Your task to perform on an android device: change the clock display to analog Image 0: 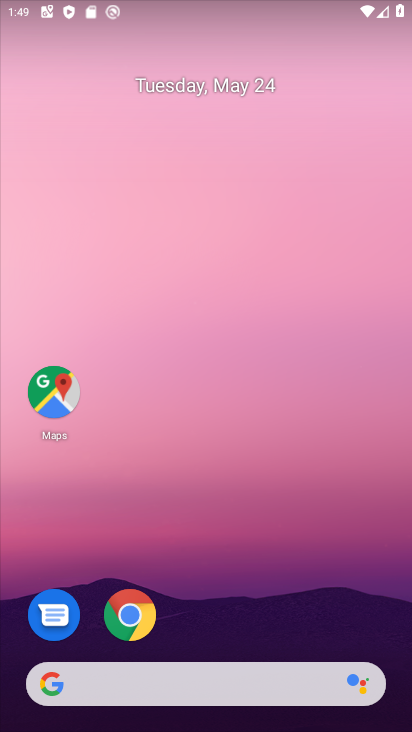
Step 0: drag from (198, 639) to (248, 42)
Your task to perform on an android device: change the clock display to analog Image 1: 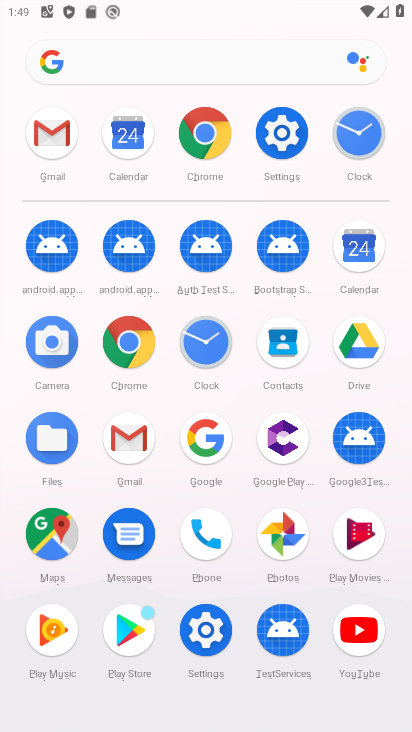
Step 1: click (204, 331)
Your task to perform on an android device: change the clock display to analog Image 2: 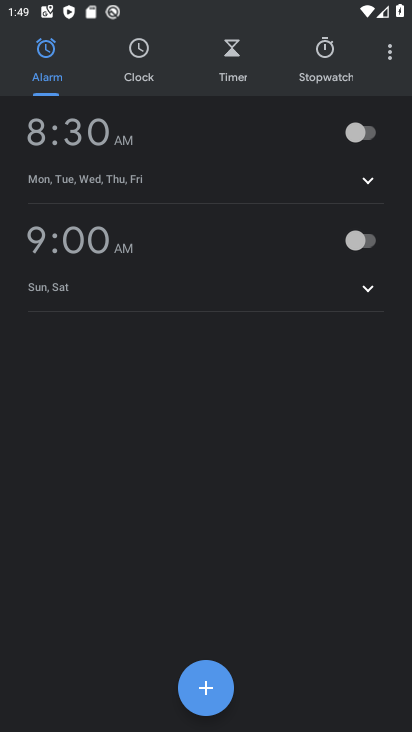
Step 2: click (389, 47)
Your task to perform on an android device: change the clock display to analog Image 3: 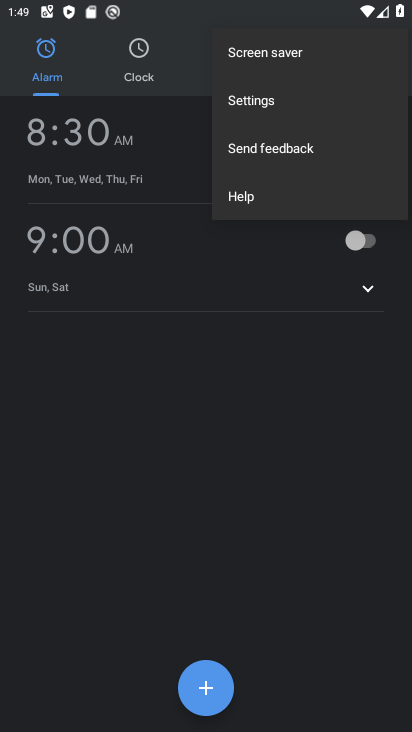
Step 3: click (282, 97)
Your task to perform on an android device: change the clock display to analog Image 4: 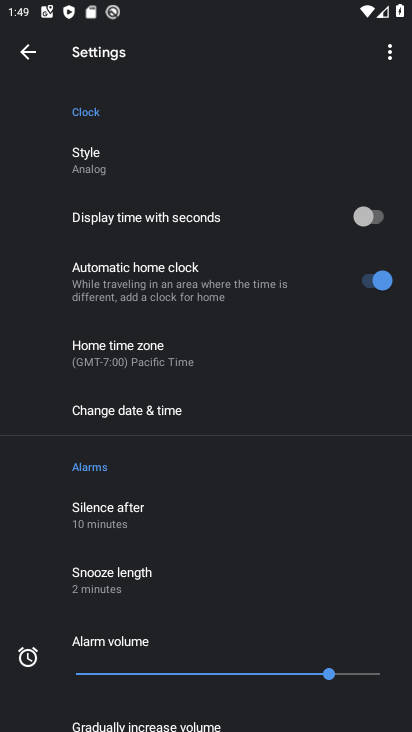
Step 4: click (137, 157)
Your task to perform on an android device: change the clock display to analog Image 5: 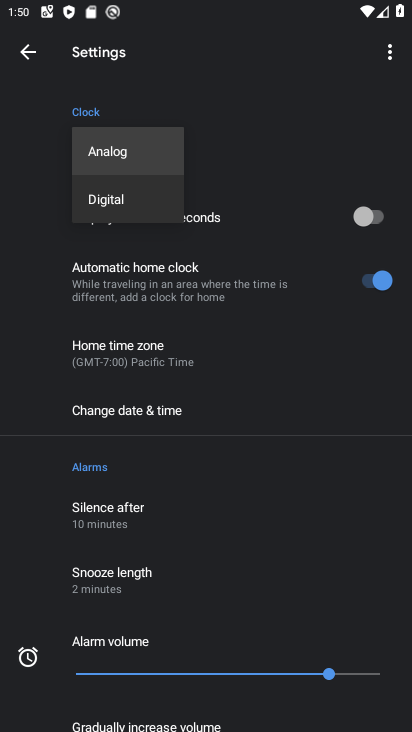
Step 5: click (138, 147)
Your task to perform on an android device: change the clock display to analog Image 6: 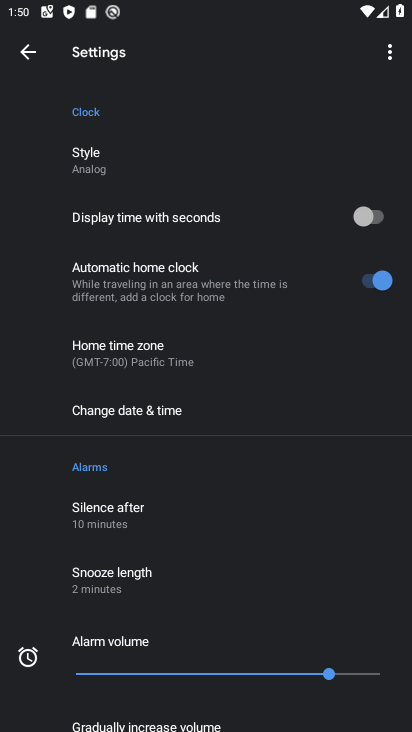
Step 6: task complete